Your task to perform on an android device: Open location settings Image 0: 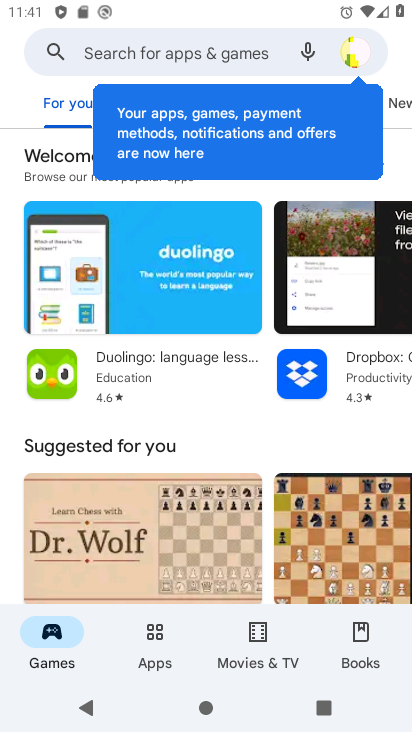
Step 0: press home button
Your task to perform on an android device: Open location settings Image 1: 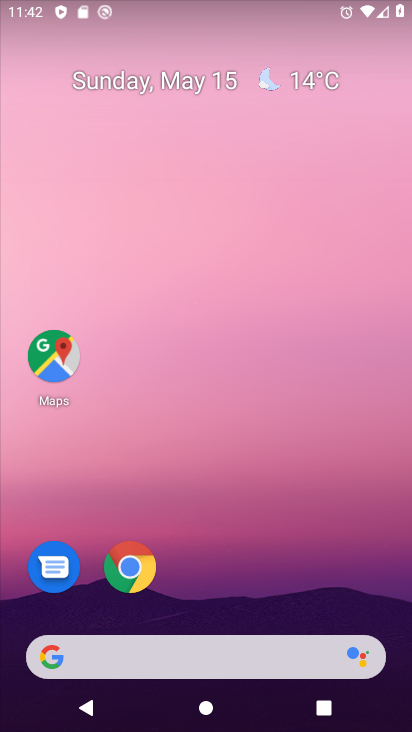
Step 1: drag from (229, 576) to (190, 62)
Your task to perform on an android device: Open location settings Image 2: 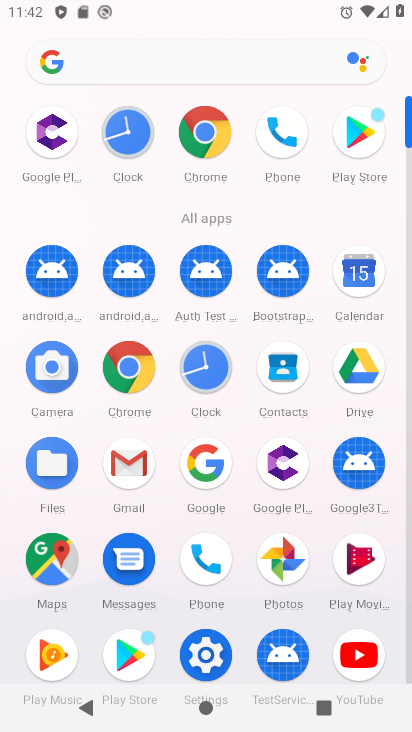
Step 2: click (199, 646)
Your task to perform on an android device: Open location settings Image 3: 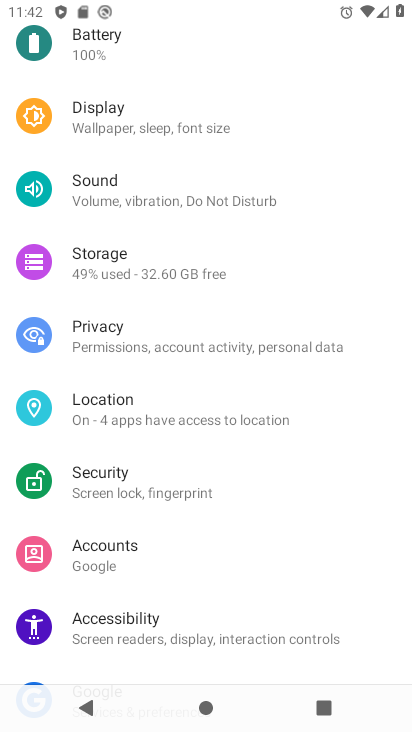
Step 3: click (142, 417)
Your task to perform on an android device: Open location settings Image 4: 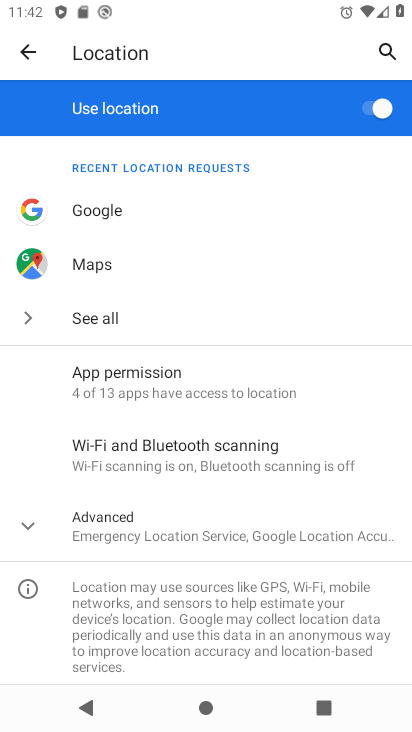
Step 4: task complete